Your task to perform on an android device: check battery use Image 0: 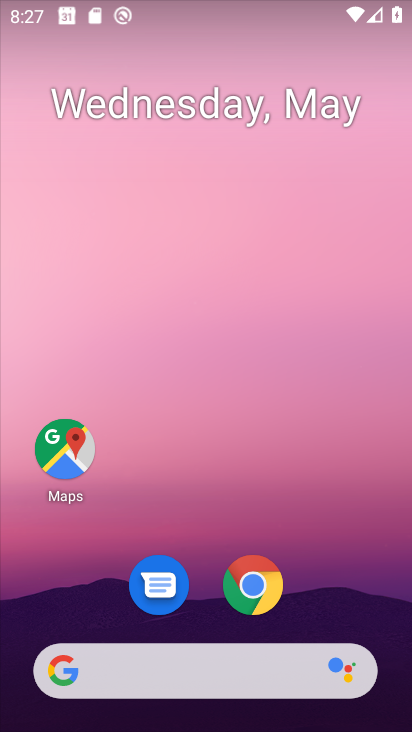
Step 0: drag from (335, 543) to (263, 105)
Your task to perform on an android device: check battery use Image 1: 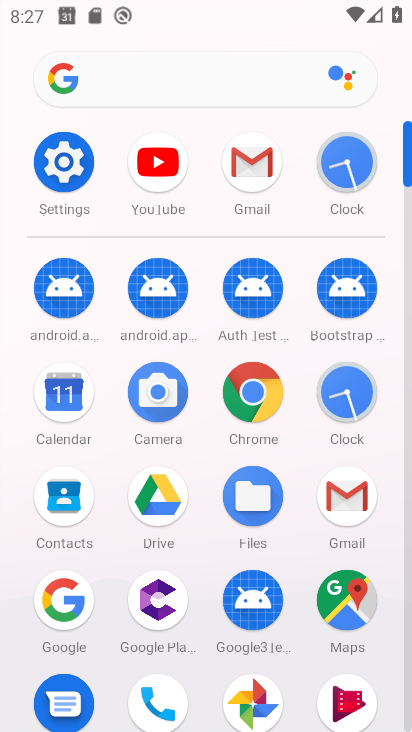
Step 1: click (56, 148)
Your task to perform on an android device: check battery use Image 2: 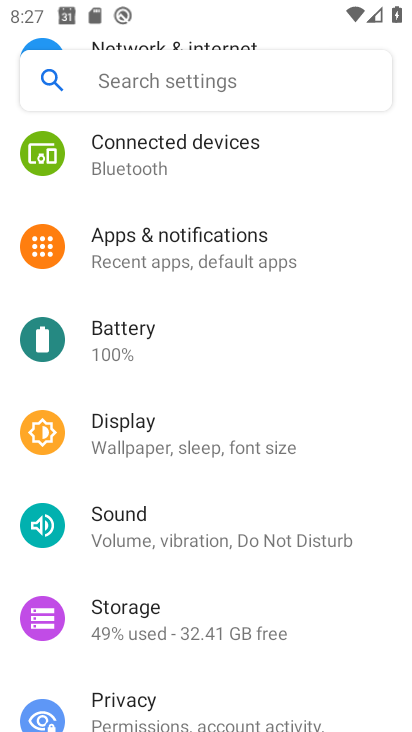
Step 2: click (179, 333)
Your task to perform on an android device: check battery use Image 3: 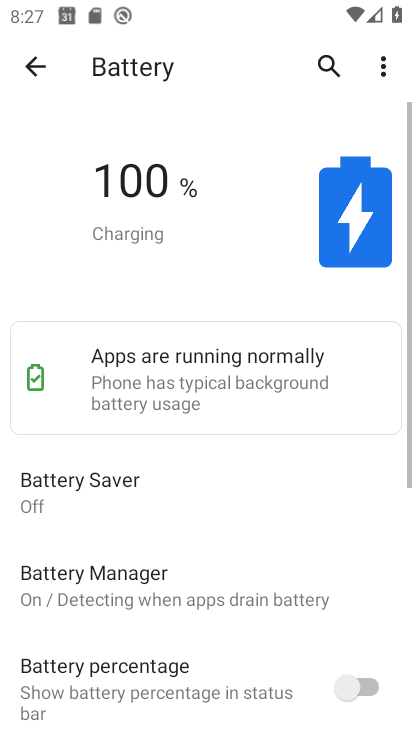
Step 3: click (383, 46)
Your task to perform on an android device: check battery use Image 4: 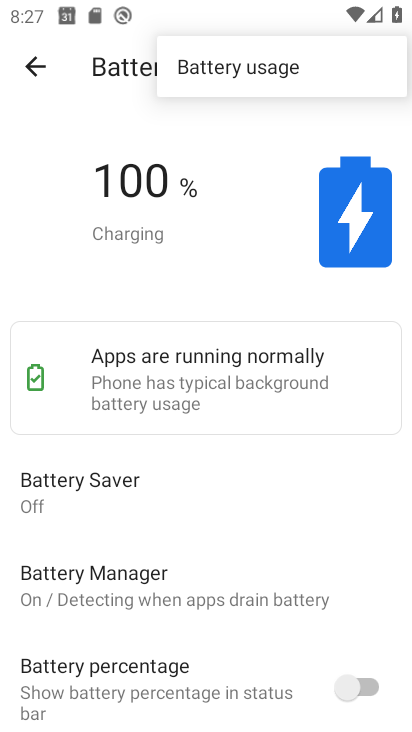
Step 4: click (293, 51)
Your task to perform on an android device: check battery use Image 5: 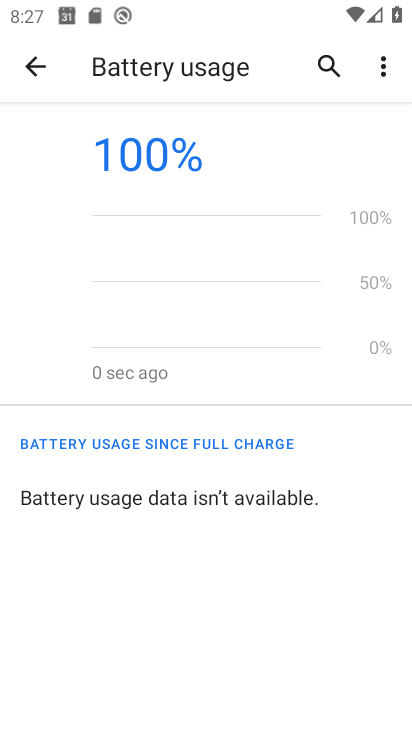
Step 5: task complete